Your task to perform on an android device: Turn off the flashlight Image 0: 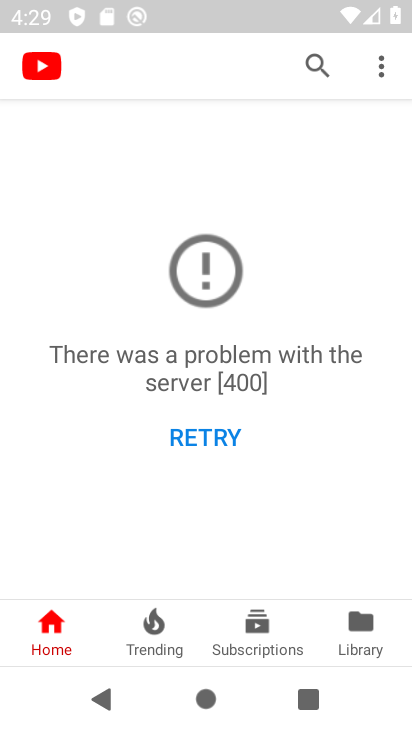
Step 0: press home button
Your task to perform on an android device: Turn off the flashlight Image 1: 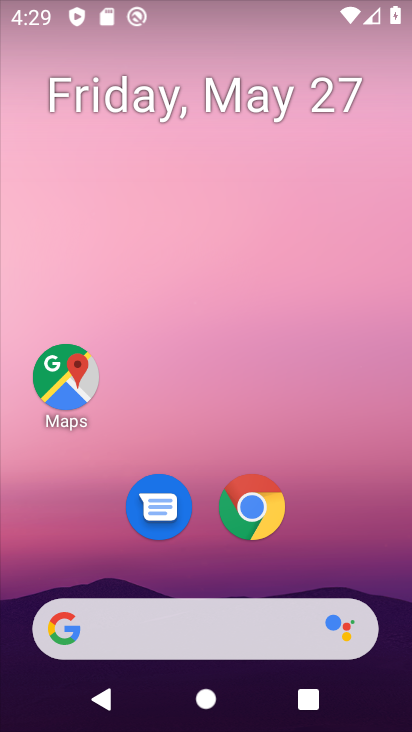
Step 1: drag from (333, 520) to (287, 208)
Your task to perform on an android device: Turn off the flashlight Image 2: 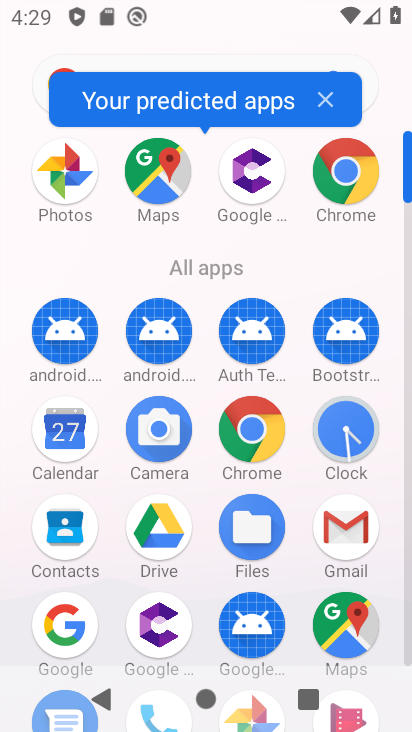
Step 2: drag from (205, 519) to (205, 344)
Your task to perform on an android device: Turn off the flashlight Image 3: 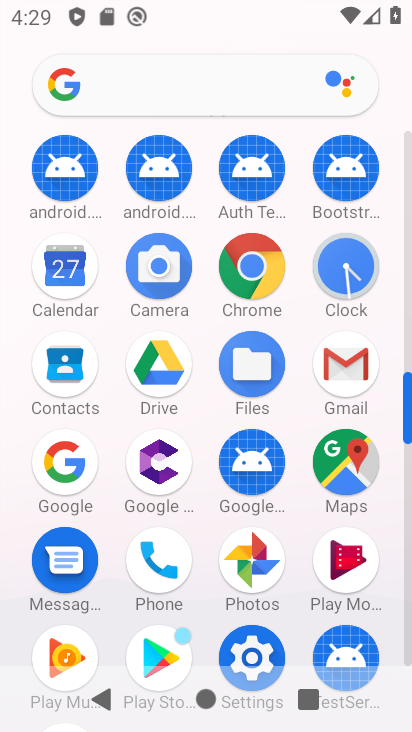
Step 3: drag from (208, 601) to (205, 329)
Your task to perform on an android device: Turn off the flashlight Image 4: 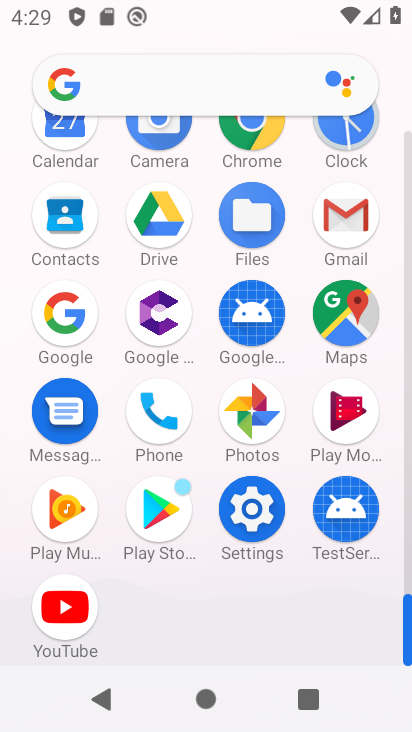
Step 4: click (251, 508)
Your task to perform on an android device: Turn off the flashlight Image 5: 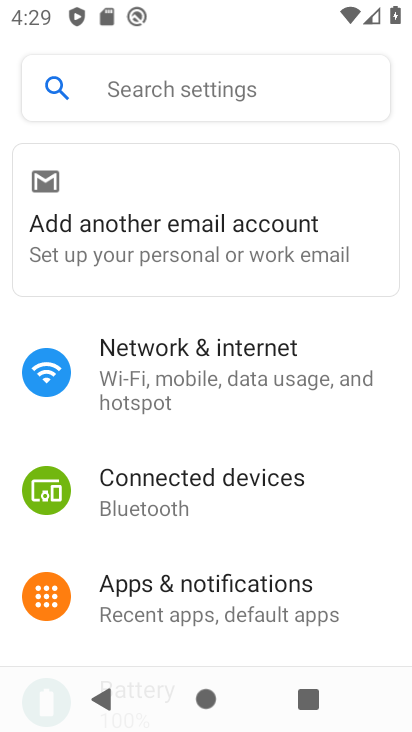
Step 5: drag from (197, 457) to (263, 382)
Your task to perform on an android device: Turn off the flashlight Image 6: 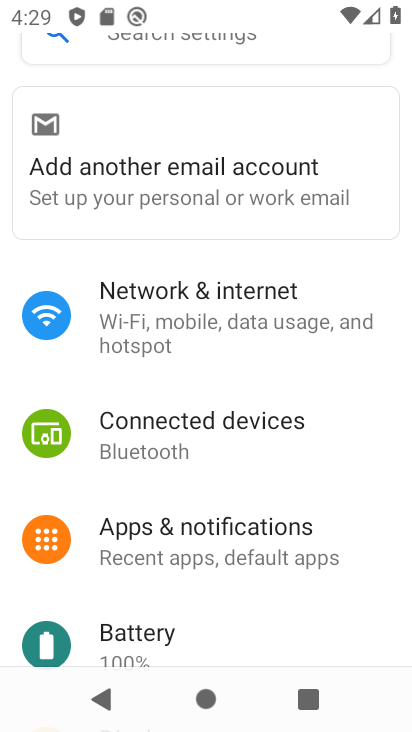
Step 6: drag from (147, 583) to (233, 465)
Your task to perform on an android device: Turn off the flashlight Image 7: 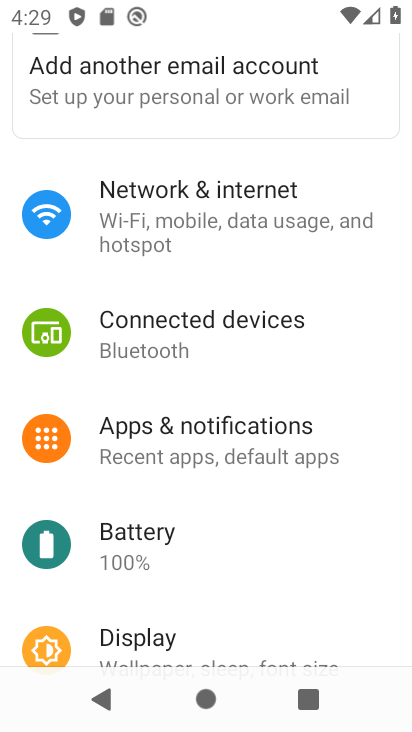
Step 7: drag from (161, 498) to (196, 454)
Your task to perform on an android device: Turn off the flashlight Image 8: 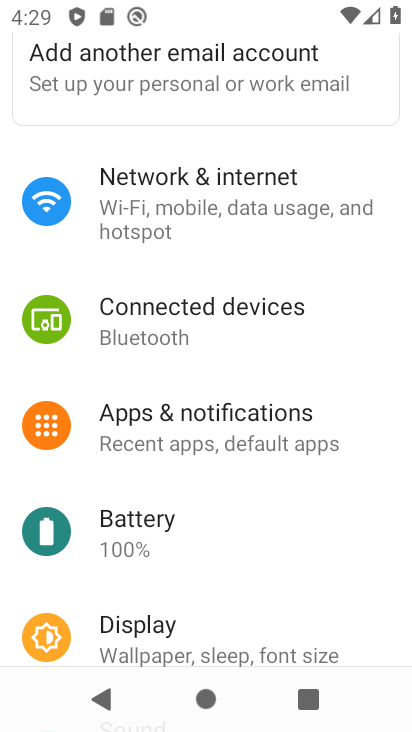
Step 8: drag from (130, 571) to (200, 491)
Your task to perform on an android device: Turn off the flashlight Image 9: 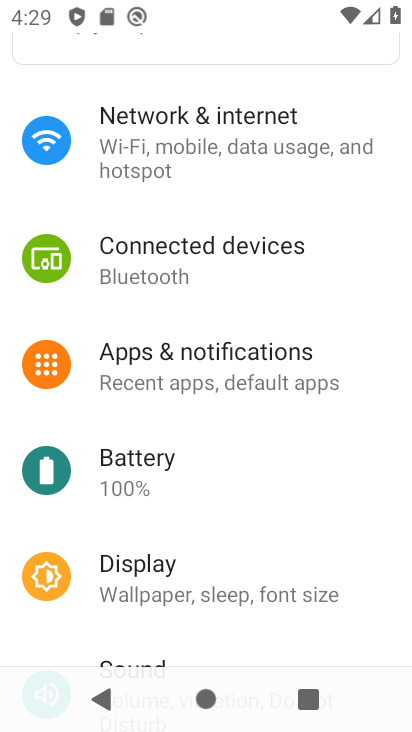
Step 9: drag from (223, 511) to (282, 437)
Your task to perform on an android device: Turn off the flashlight Image 10: 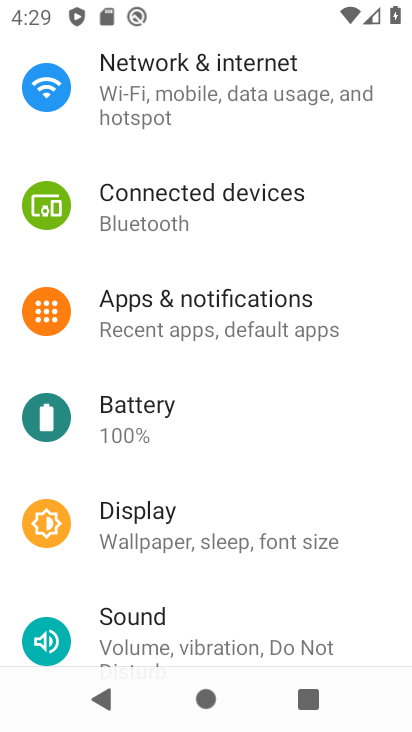
Step 10: click (227, 533)
Your task to perform on an android device: Turn off the flashlight Image 11: 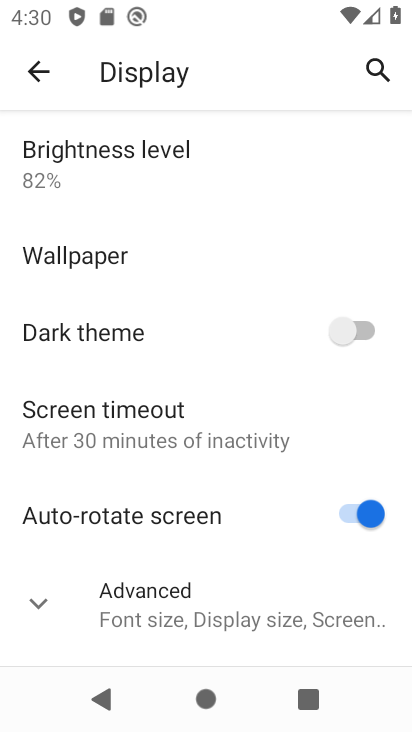
Step 11: click (166, 430)
Your task to perform on an android device: Turn off the flashlight Image 12: 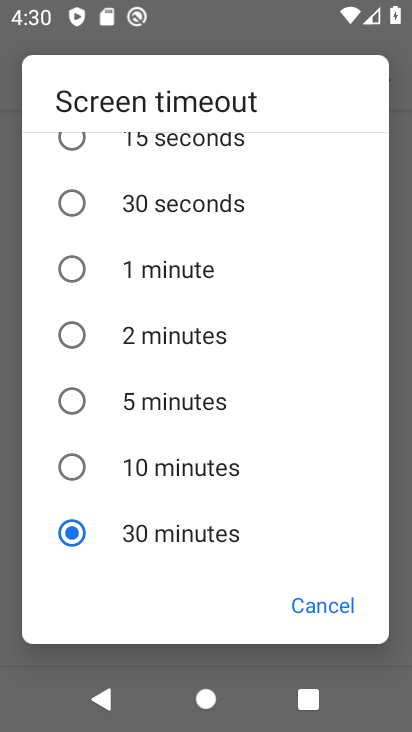
Step 12: click (317, 602)
Your task to perform on an android device: Turn off the flashlight Image 13: 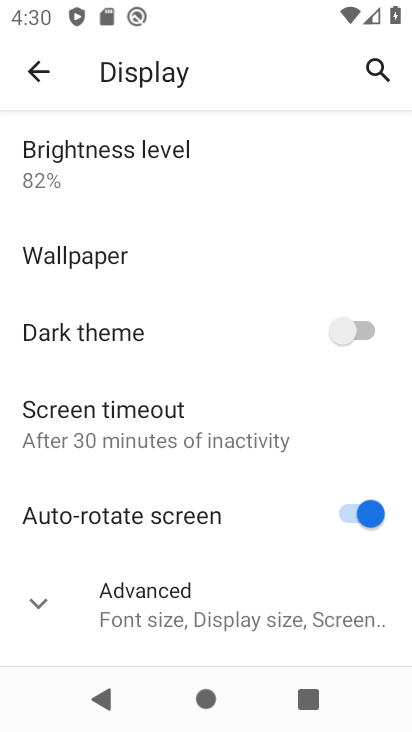
Step 13: task complete